Your task to perform on an android device: Clear all items from cart on newegg.com. Search for acer nitro on newegg.com, select the first entry, add it to the cart, then select checkout. Image 0: 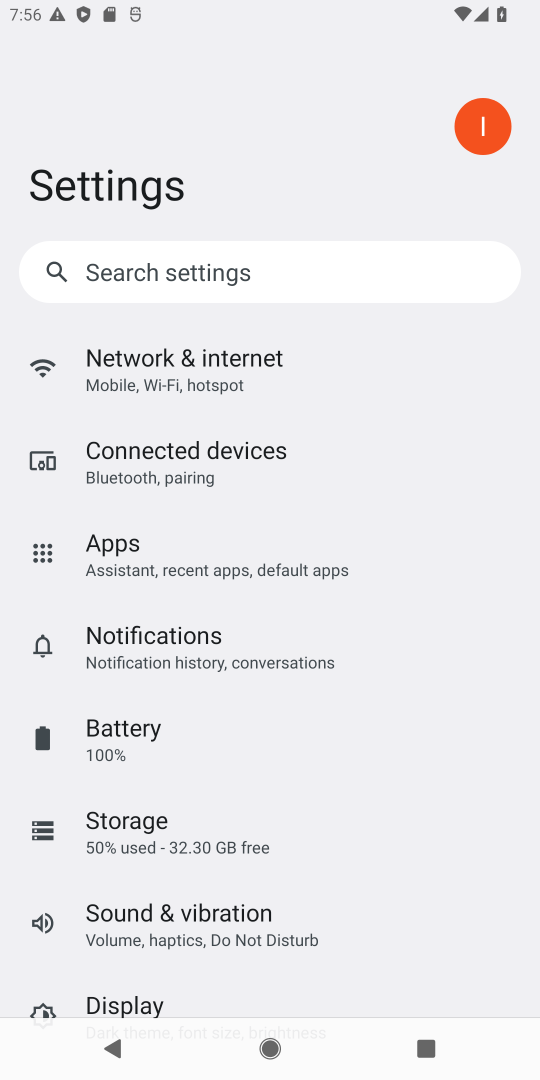
Step 0: press home button
Your task to perform on an android device: Clear all items from cart on newegg.com. Search for acer nitro on newegg.com, select the first entry, add it to the cart, then select checkout. Image 1: 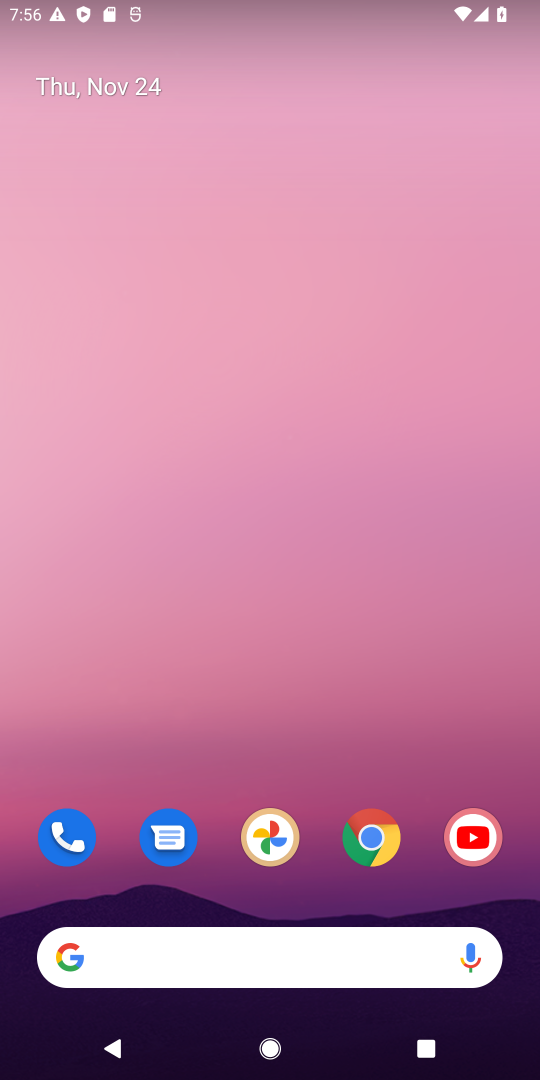
Step 1: click (362, 831)
Your task to perform on an android device: Clear all items from cart on newegg.com. Search for acer nitro on newegg.com, select the first entry, add it to the cart, then select checkout. Image 2: 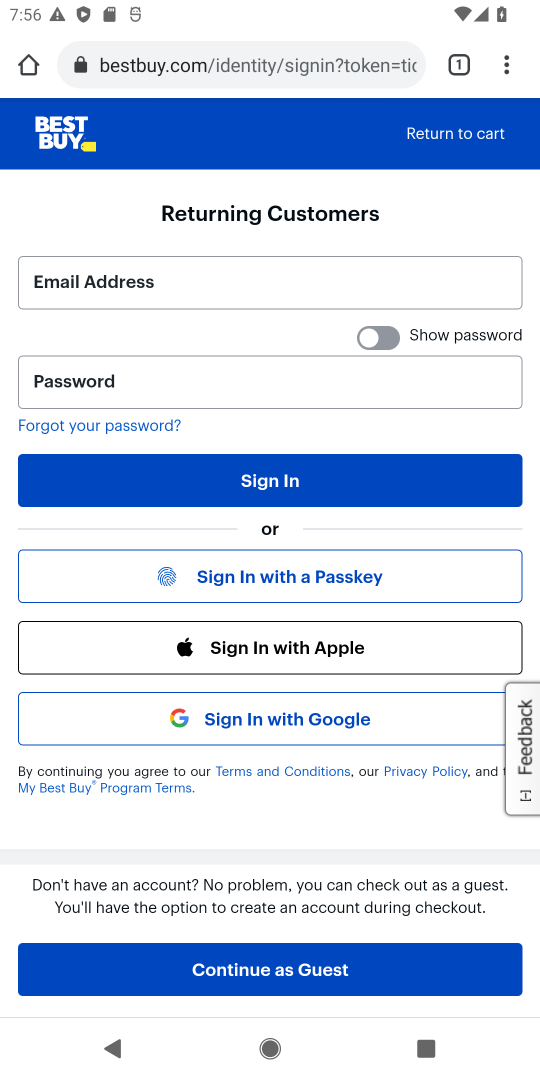
Step 2: click (270, 54)
Your task to perform on an android device: Clear all items from cart on newegg.com. Search for acer nitro on newegg.com, select the first entry, add it to the cart, then select checkout. Image 3: 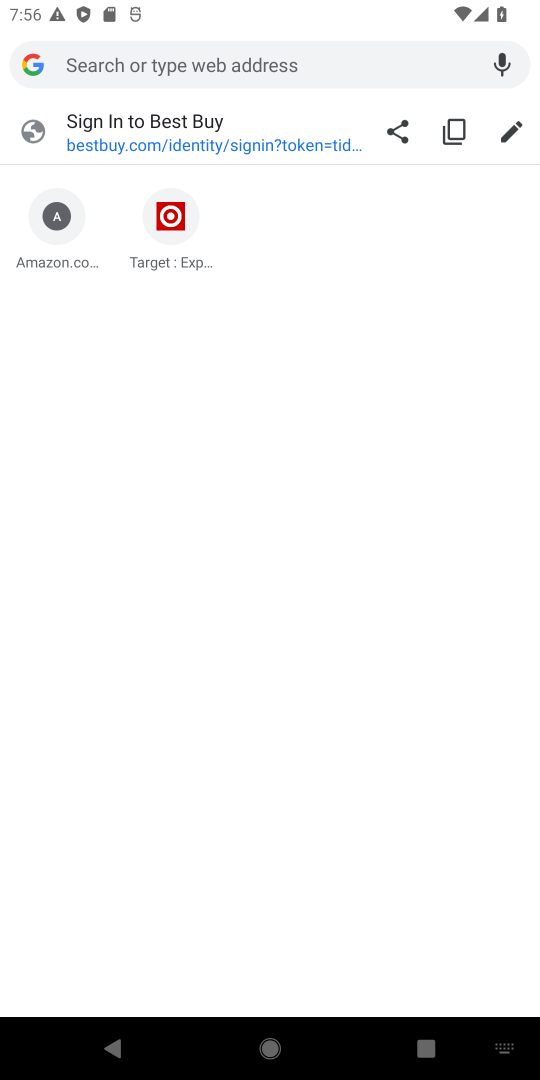
Step 3: type "newegg.com"
Your task to perform on an android device: Clear all items from cart on newegg.com. Search for acer nitro on newegg.com, select the first entry, add it to the cart, then select checkout. Image 4: 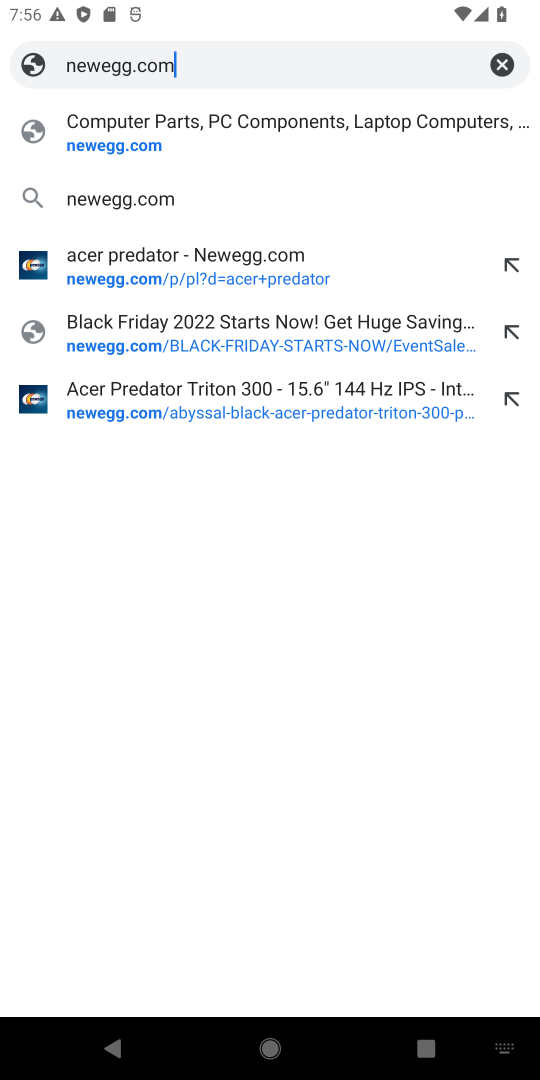
Step 4: click (156, 208)
Your task to perform on an android device: Clear all items from cart on newegg.com. Search for acer nitro on newegg.com, select the first entry, add it to the cart, then select checkout. Image 5: 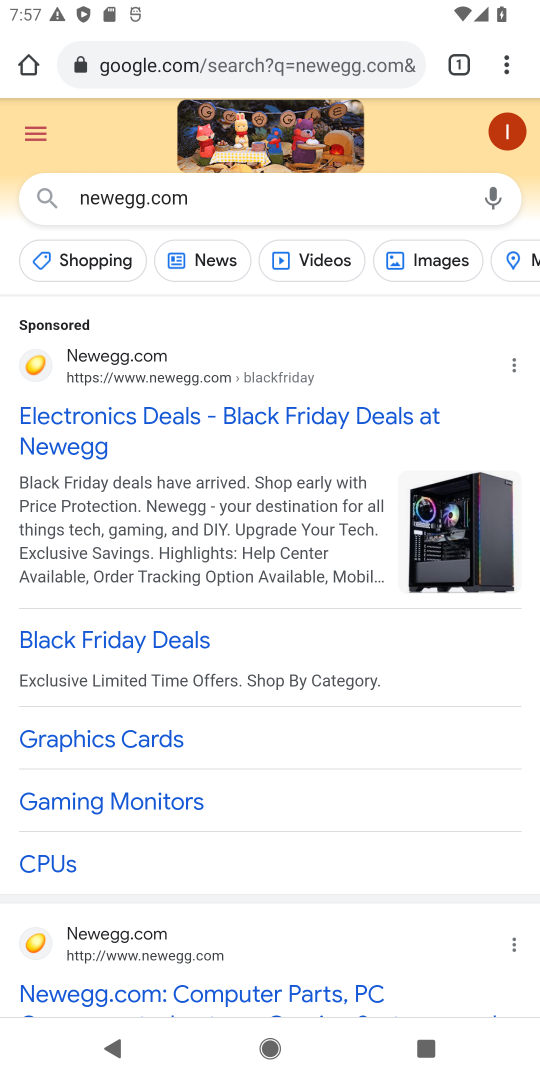
Step 5: click (149, 410)
Your task to perform on an android device: Clear all items from cart on newegg.com. Search for acer nitro on newegg.com, select the first entry, add it to the cart, then select checkout. Image 6: 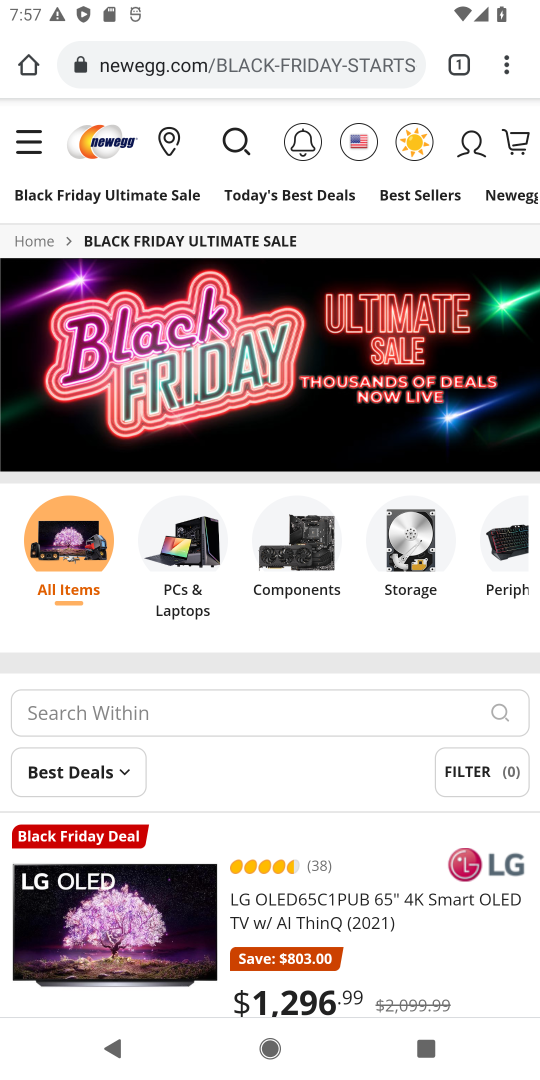
Step 6: click (219, 136)
Your task to perform on an android device: Clear all items from cart on newegg.com. Search for acer nitro on newegg.com, select the first entry, add it to the cart, then select checkout. Image 7: 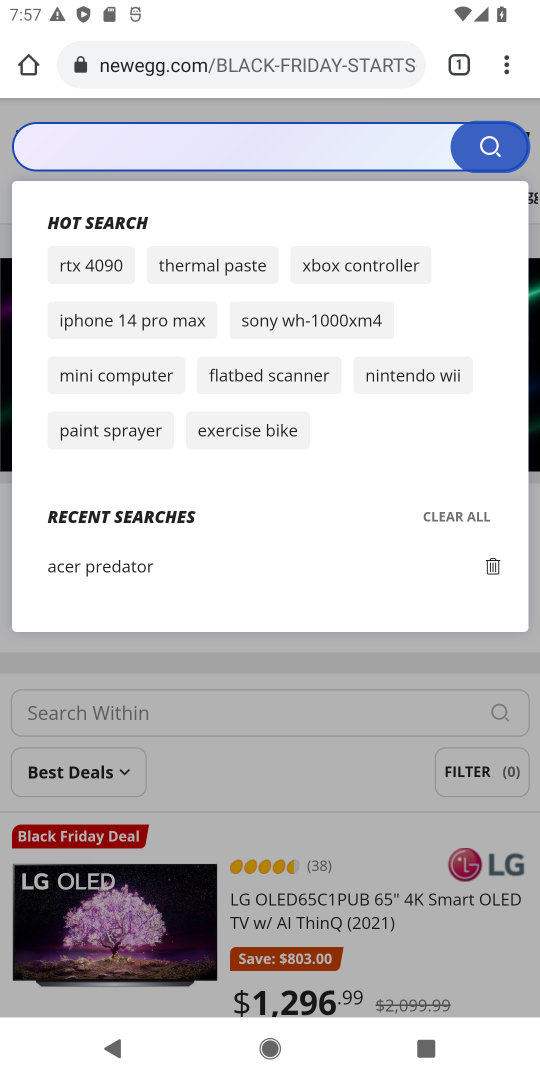
Step 7: click (205, 136)
Your task to perform on an android device: Clear all items from cart on newegg.com. Search for acer nitro on newegg.com, select the first entry, add it to the cart, then select checkout. Image 8: 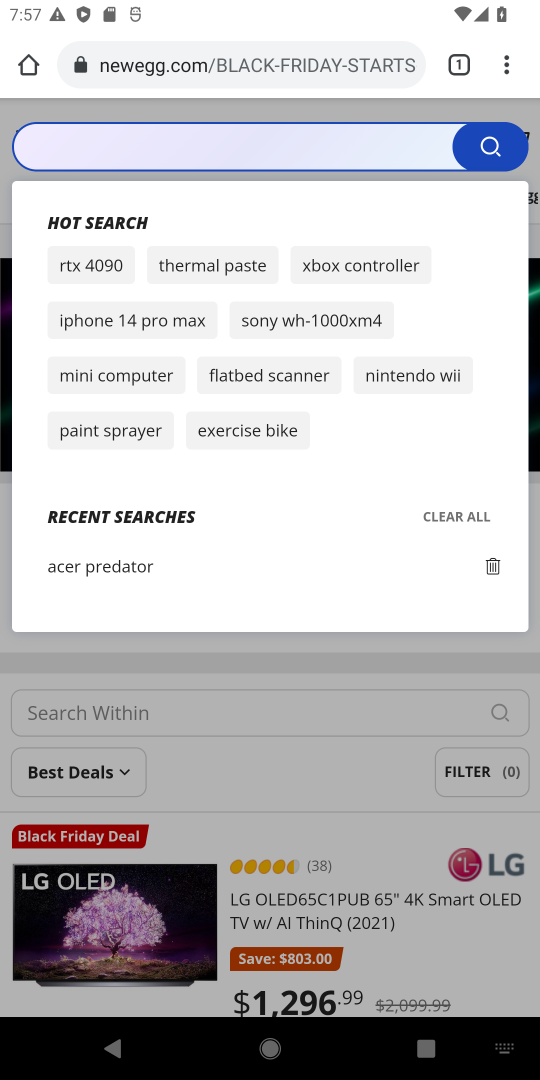
Step 8: type "acer nitro "
Your task to perform on an android device: Clear all items from cart on newegg.com. Search for acer nitro on newegg.com, select the first entry, add it to the cart, then select checkout. Image 9: 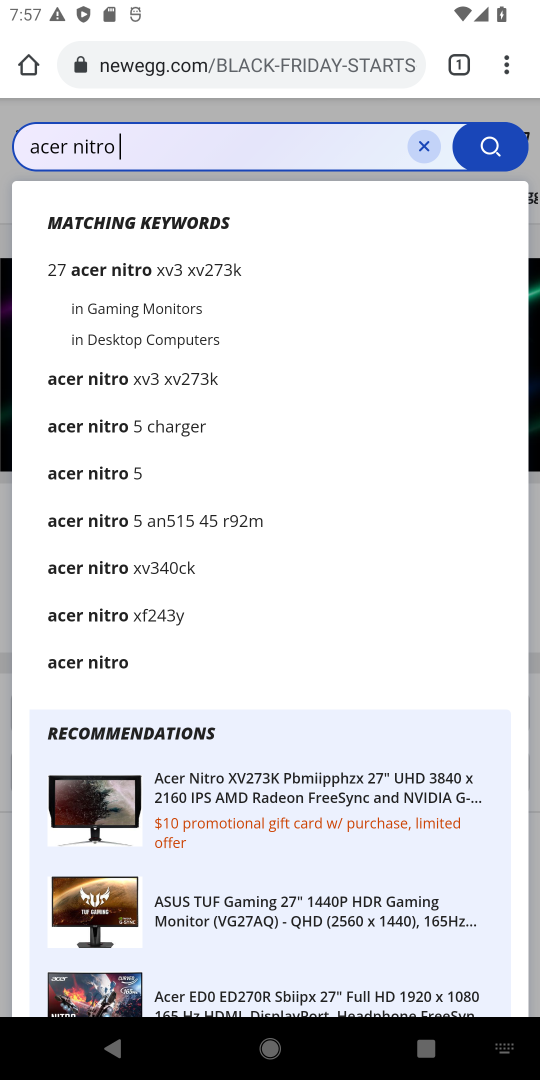
Step 9: click (493, 151)
Your task to perform on an android device: Clear all items from cart on newegg.com. Search for acer nitro on newegg.com, select the first entry, add it to the cart, then select checkout. Image 10: 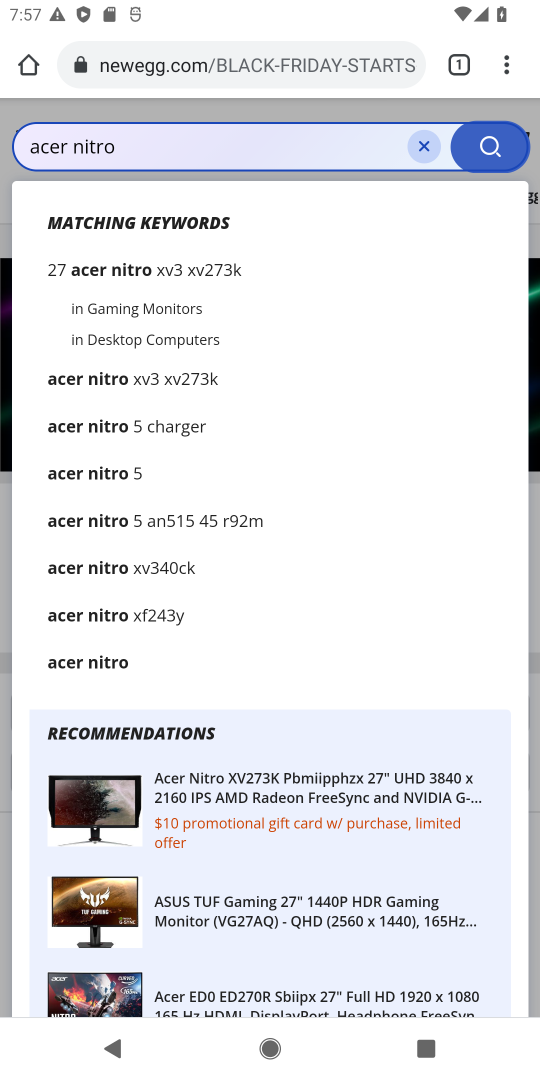
Step 10: click (139, 267)
Your task to perform on an android device: Clear all items from cart on newegg.com. Search for acer nitro on newegg.com, select the first entry, add it to the cart, then select checkout. Image 11: 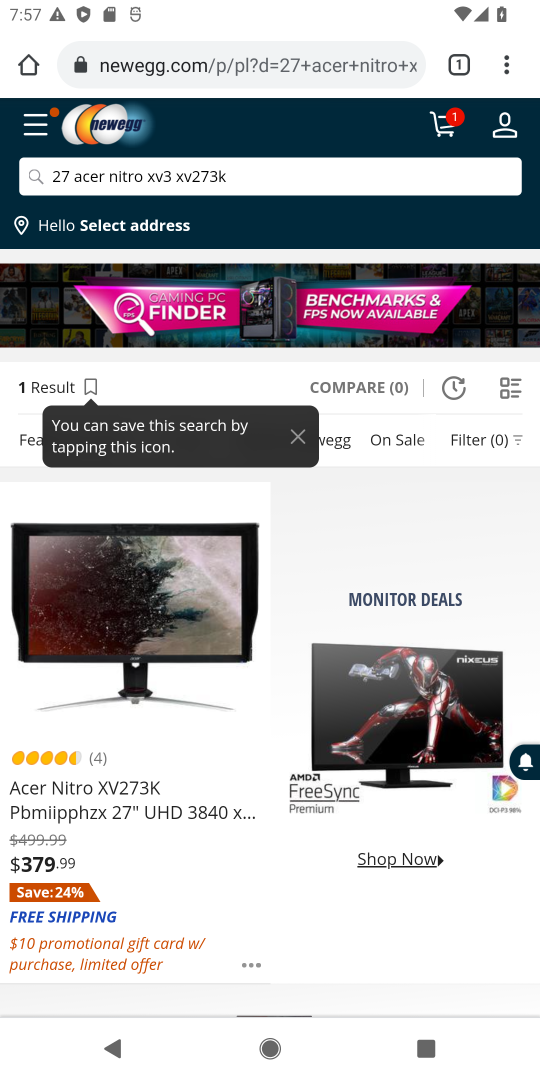
Step 11: click (169, 662)
Your task to perform on an android device: Clear all items from cart on newegg.com. Search for acer nitro on newegg.com, select the first entry, add it to the cart, then select checkout. Image 12: 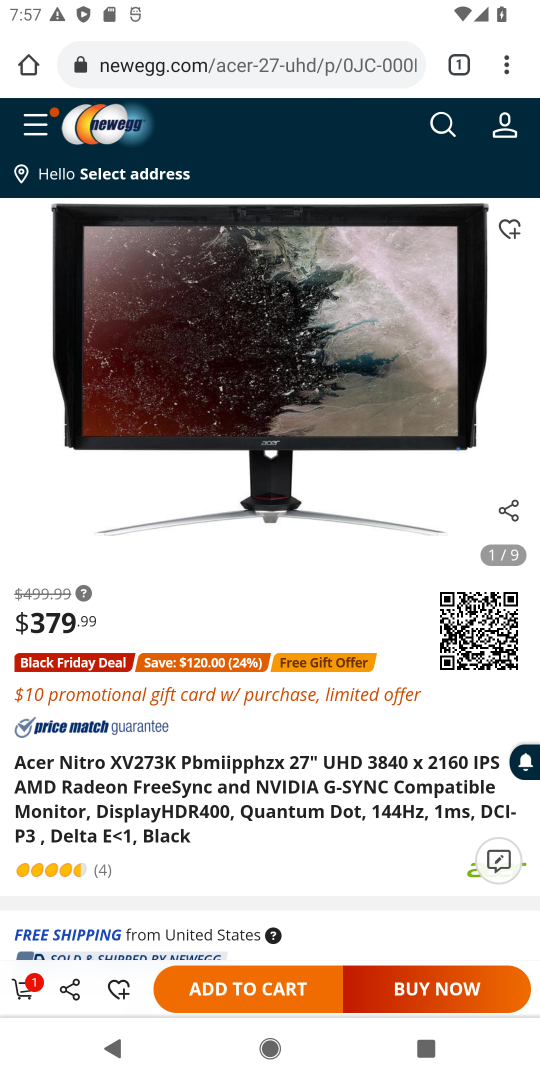
Step 12: click (240, 991)
Your task to perform on an android device: Clear all items from cart on newegg.com. Search for acer nitro on newegg.com, select the first entry, add it to the cart, then select checkout. Image 13: 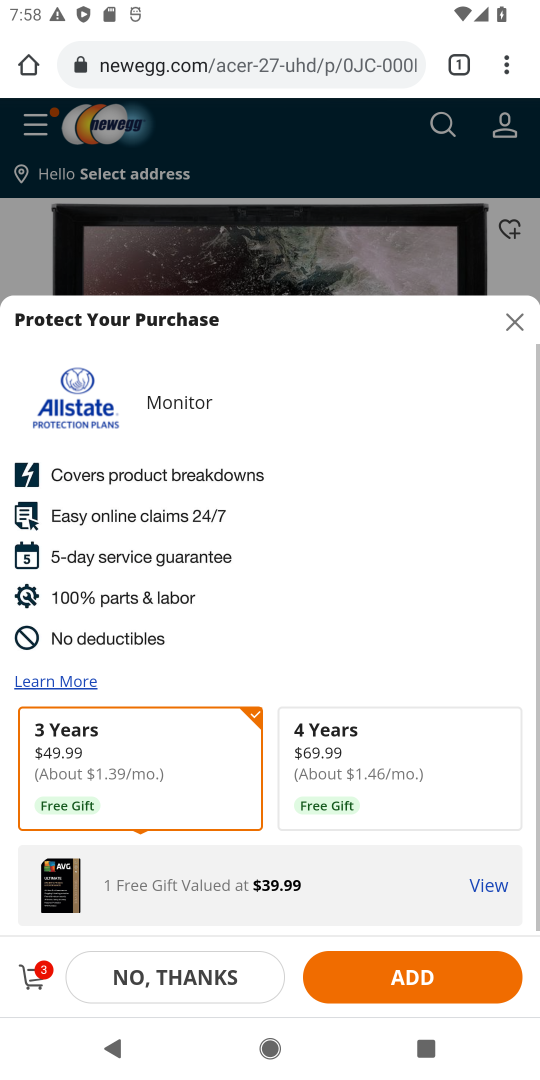
Step 13: click (234, 984)
Your task to perform on an android device: Clear all items from cart on newegg.com. Search for acer nitro on newegg.com, select the first entry, add it to the cart, then select checkout. Image 14: 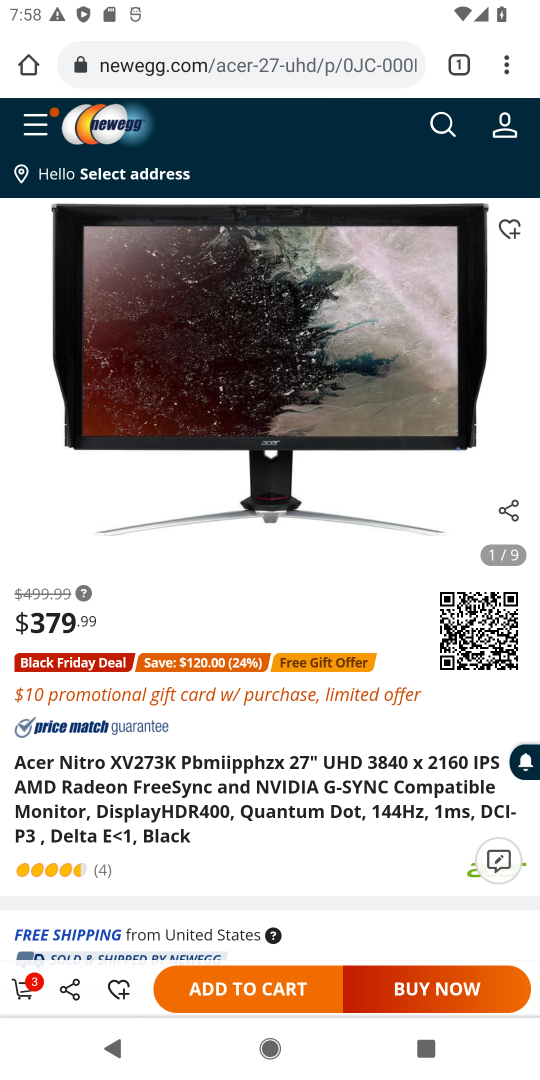
Step 14: click (30, 984)
Your task to perform on an android device: Clear all items from cart on newegg.com. Search for acer nitro on newegg.com, select the first entry, add it to the cart, then select checkout. Image 15: 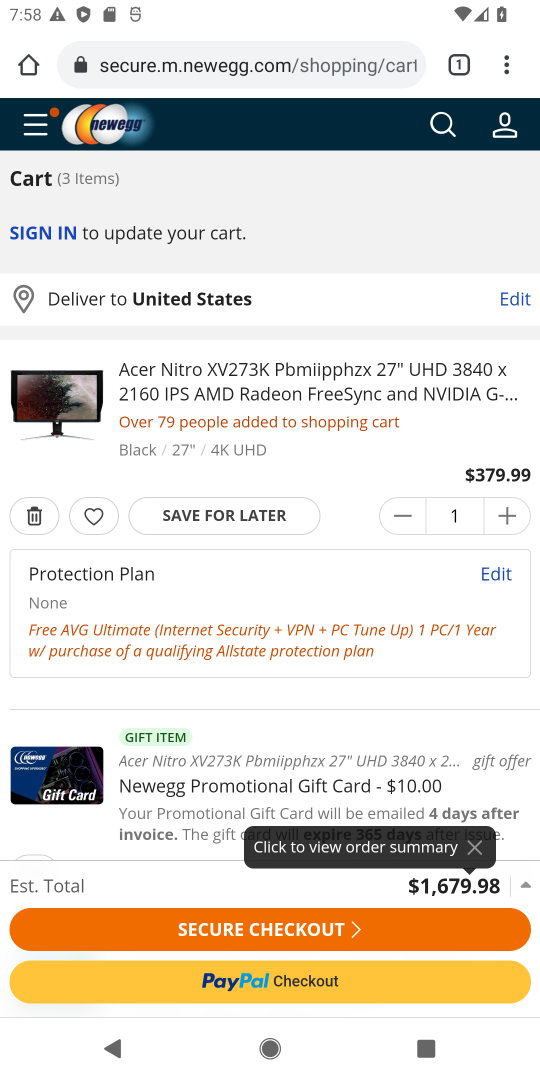
Step 15: click (287, 928)
Your task to perform on an android device: Clear all items from cart on newegg.com. Search for acer nitro on newegg.com, select the first entry, add it to the cart, then select checkout. Image 16: 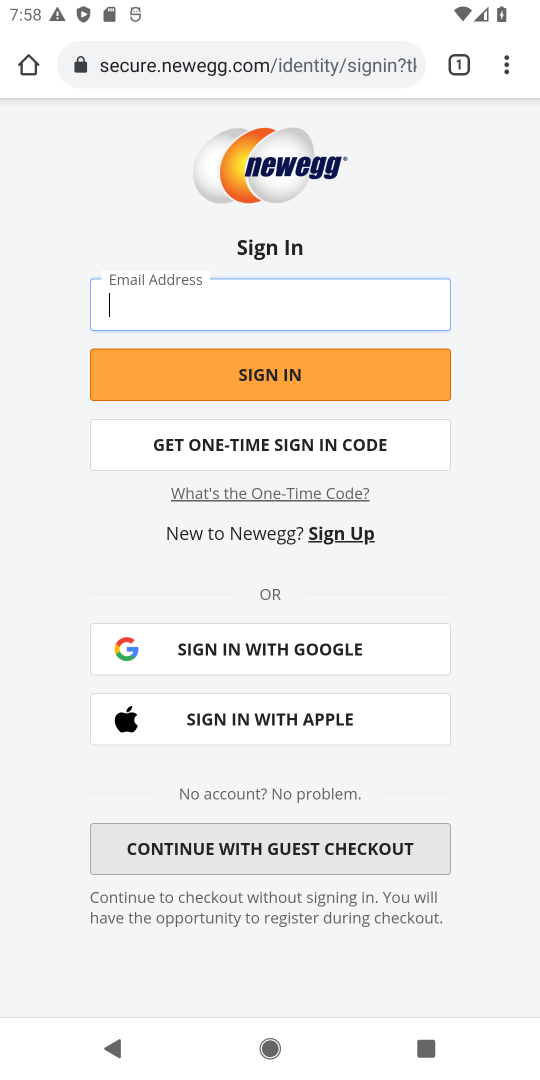
Step 16: task complete